Your task to perform on an android device: toggle location history Image 0: 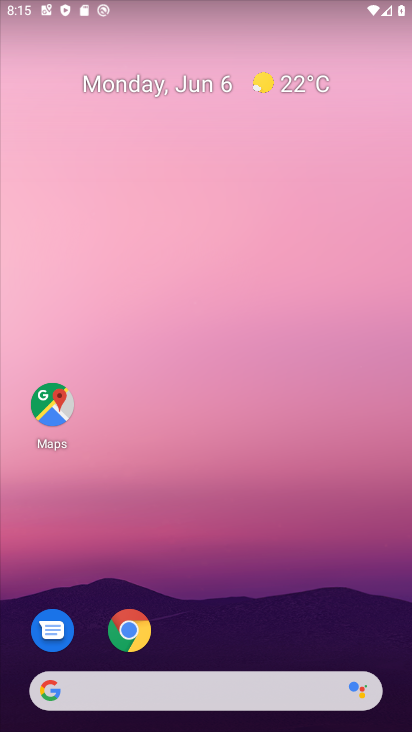
Step 0: drag from (137, 715) to (255, 55)
Your task to perform on an android device: toggle location history Image 1: 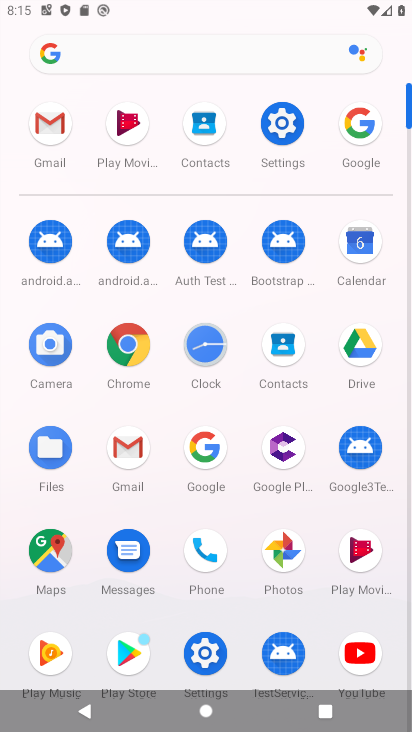
Step 1: click (272, 136)
Your task to perform on an android device: toggle location history Image 2: 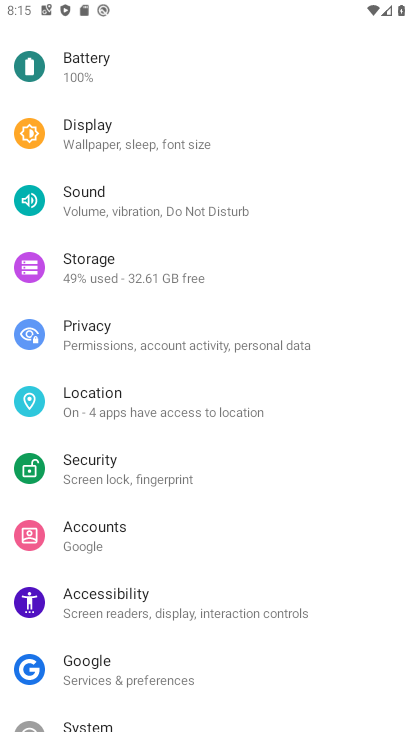
Step 2: click (83, 406)
Your task to perform on an android device: toggle location history Image 3: 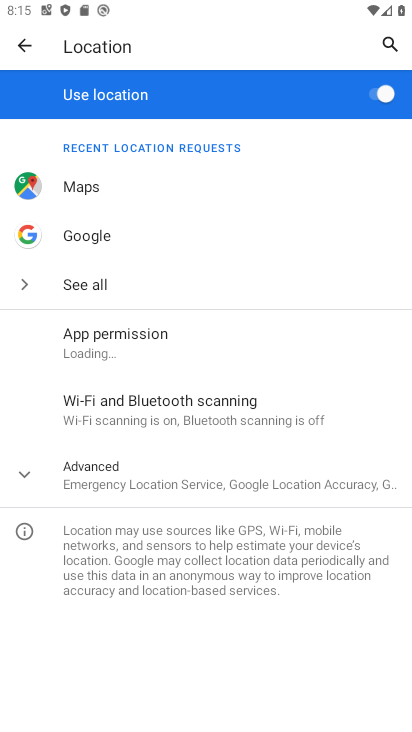
Step 3: click (122, 473)
Your task to perform on an android device: toggle location history Image 4: 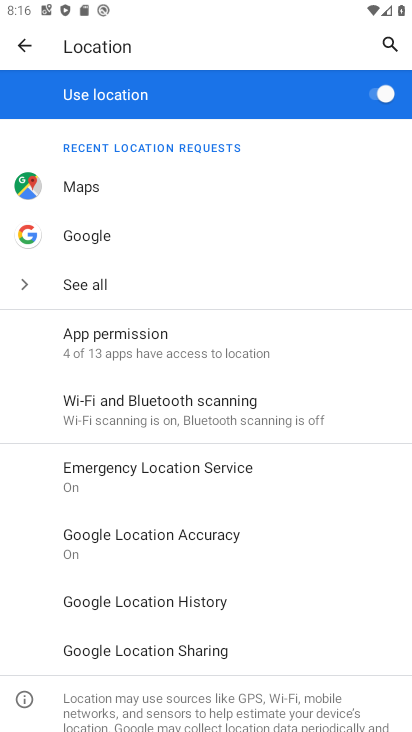
Step 4: click (212, 597)
Your task to perform on an android device: toggle location history Image 5: 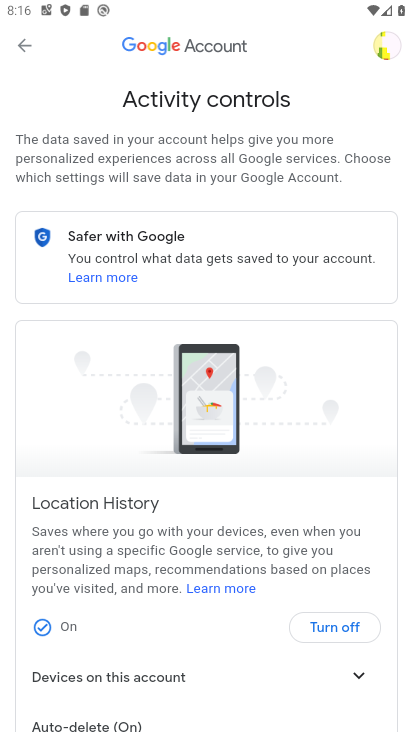
Step 5: click (332, 632)
Your task to perform on an android device: toggle location history Image 6: 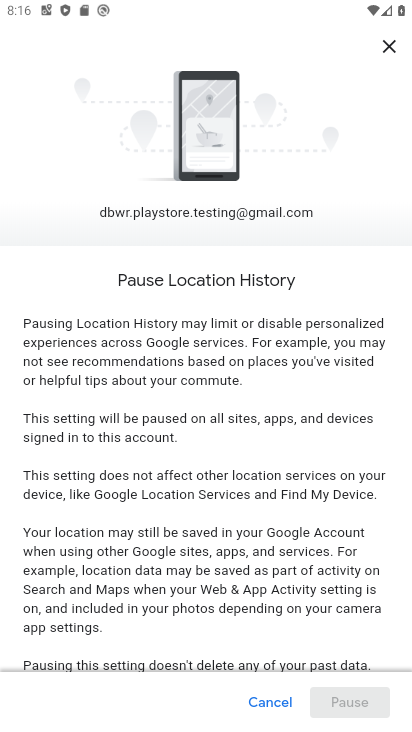
Step 6: drag from (340, 642) to (402, 260)
Your task to perform on an android device: toggle location history Image 7: 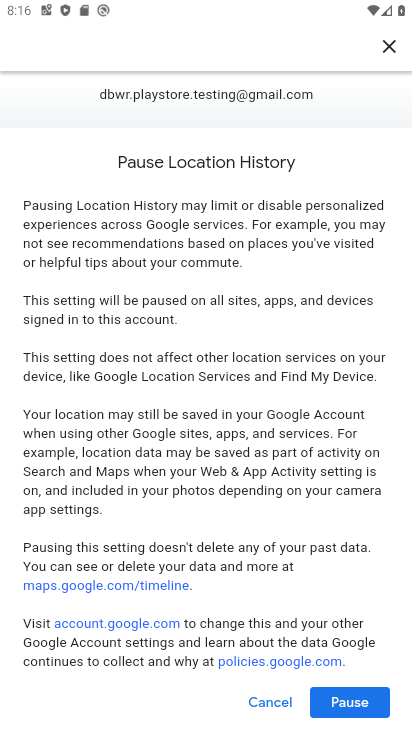
Step 7: click (360, 708)
Your task to perform on an android device: toggle location history Image 8: 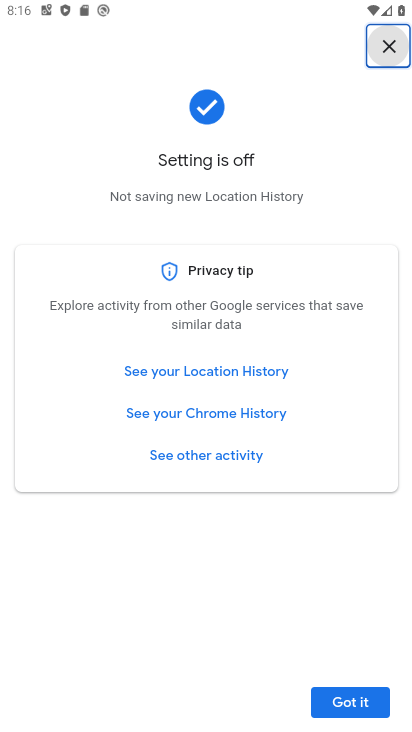
Step 8: click (325, 698)
Your task to perform on an android device: toggle location history Image 9: 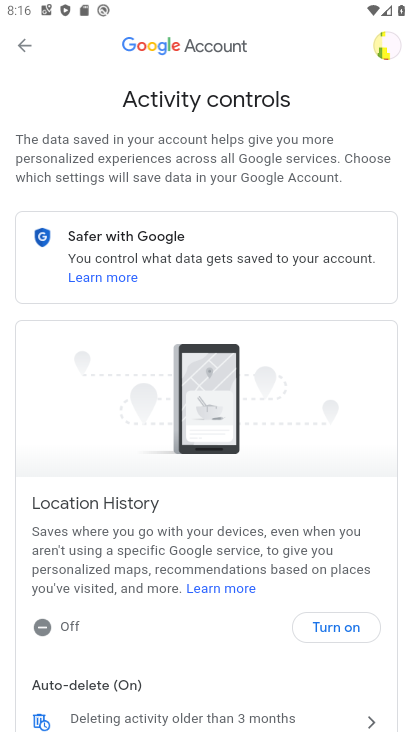
Step 9: task complete